Your task to perform on an android device: turn notification dots off Image 0: 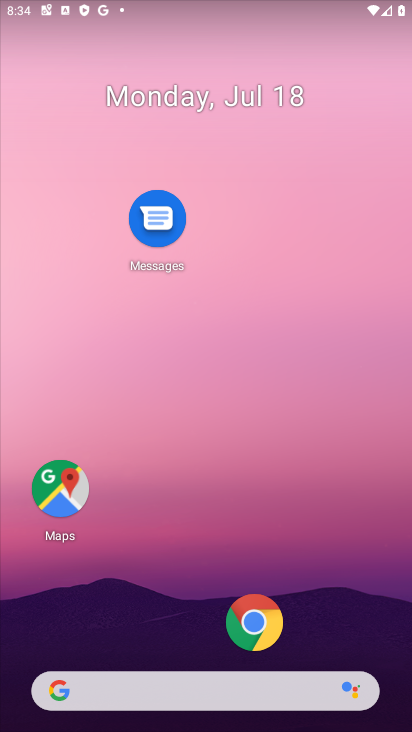
Step 0: drag from (140, 656) to (346, 692)
Your task to perform on an android device: turn notification dots off Image 1: 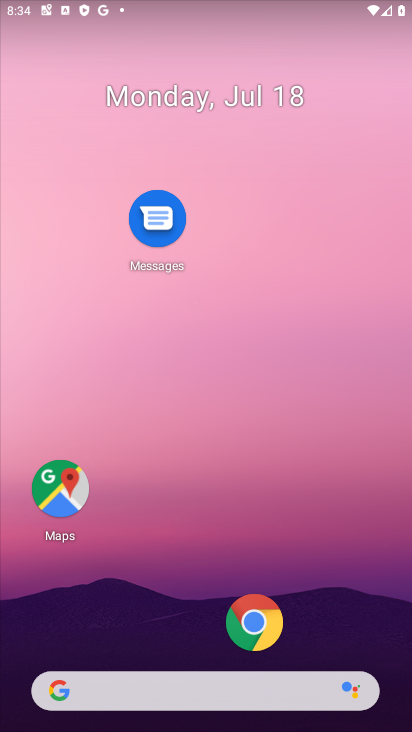
Step 1: drag from (197, 682) to (182, 98)
Your task to perform on an android device: turn notification dots off Image 2: 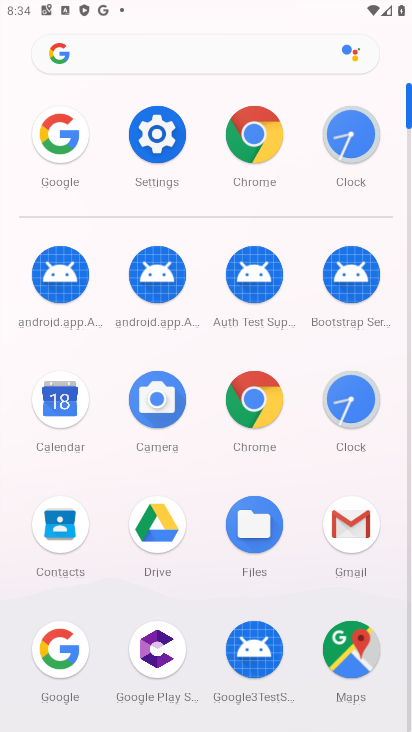
Step 2: click (147, 140)
Your task to perform on an android device: turn notification dots off Image 3: 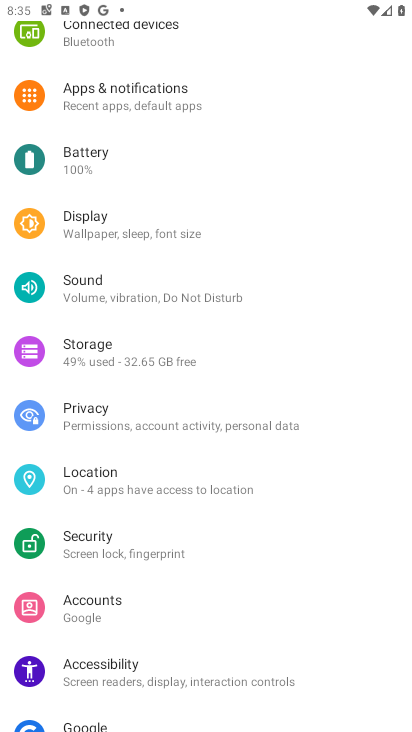
Step 3: click (125, 97)
Your task to perform on an android device: turn notification dots off Image 4: 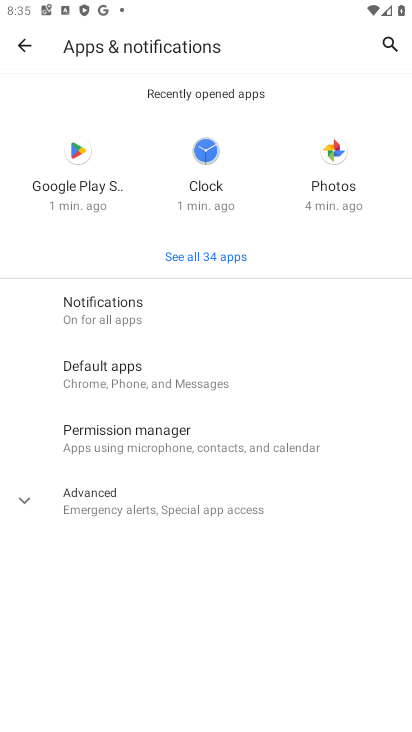
Step 4: click (152, 317)
Your task to perform on an android device: turn notification dots off Image 5: 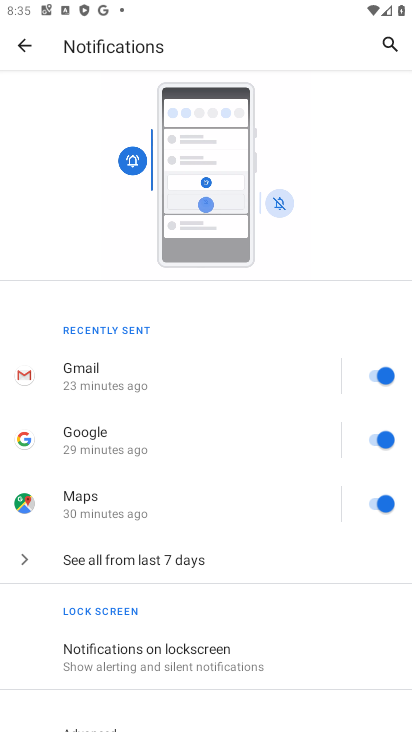
Step 5: drag from (240, 535) to (271, 131)
Your task to perform on an android device: turn notification dots off Image 6: 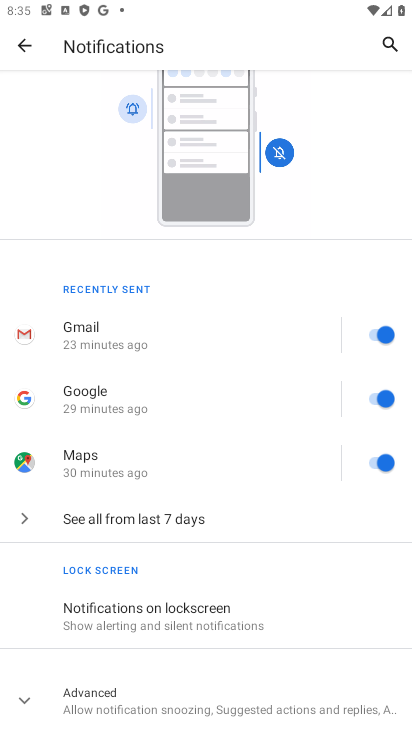
Step 6: click (202, 709)
Your task to perform on an android device: turn notification dots off Image 7: 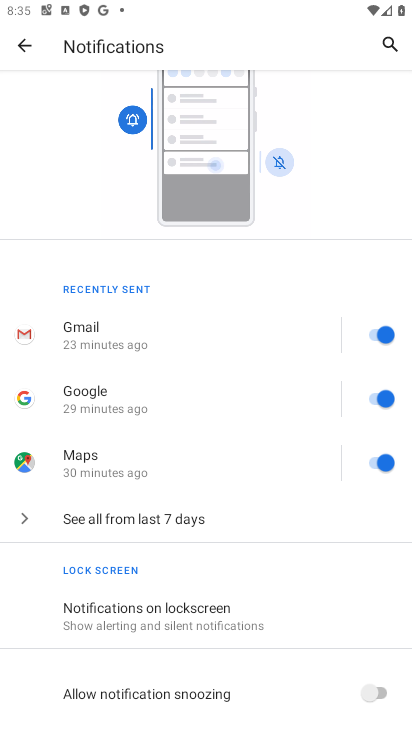
Step 7: drag from (261, 605) to (315, 259)
Your task to perform on an android device: turn notification dots off Image 8: 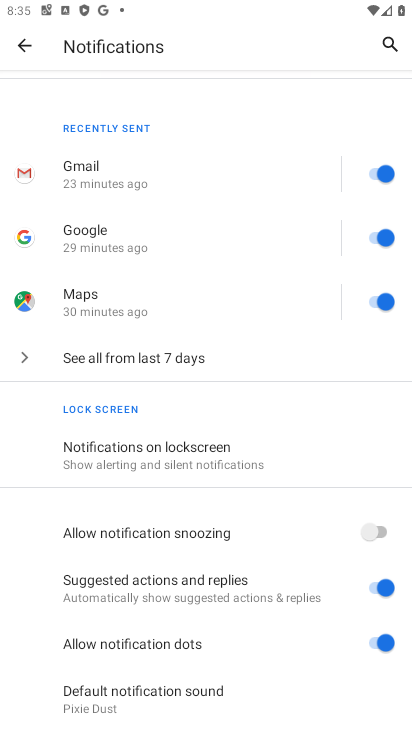
Step 8: drag from (234, 675) to (299, 222)
Your task to perform on an android device: turn notification dots off Image 9: 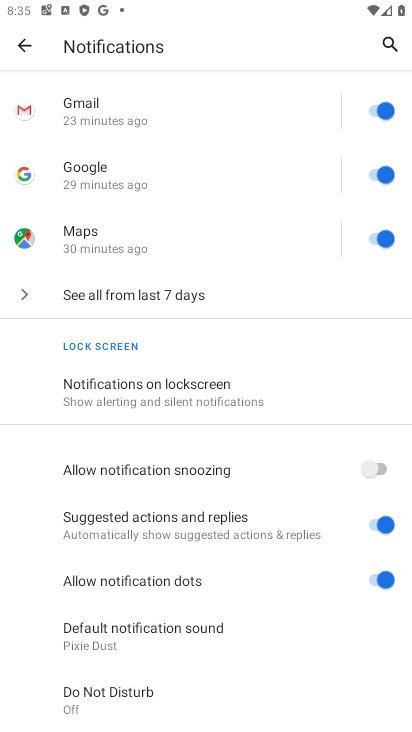
Step 9: click (339, 583)
Your task to perform on an android device: turn notification dots off Image 10: 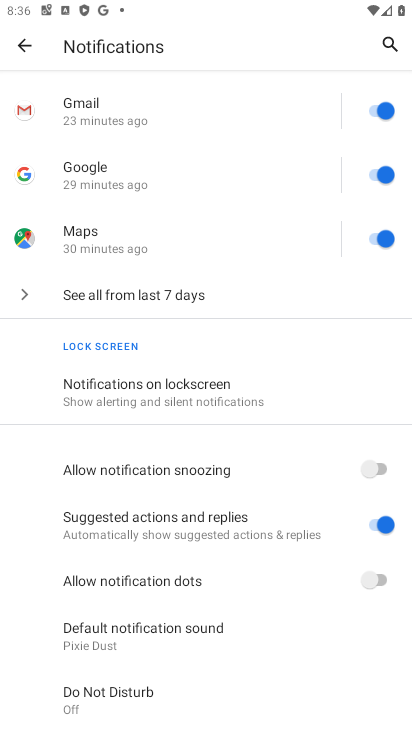
Step 10: task complete